Your task to perform on an android device: toggle notification dots Image 0: 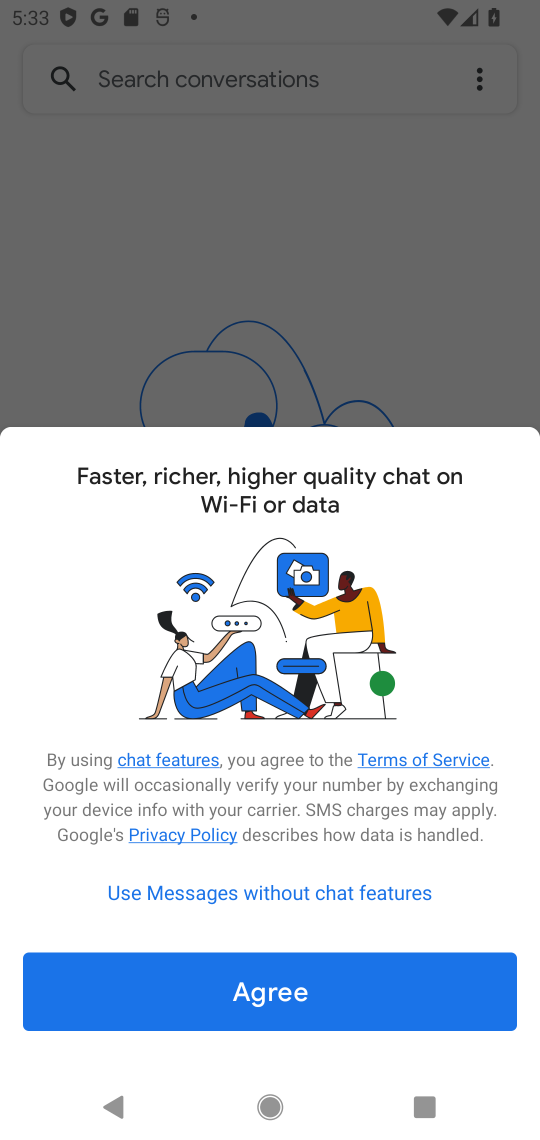
Step 0: press home button
Your task to perform on an android device: toggle notification dots Image 1: 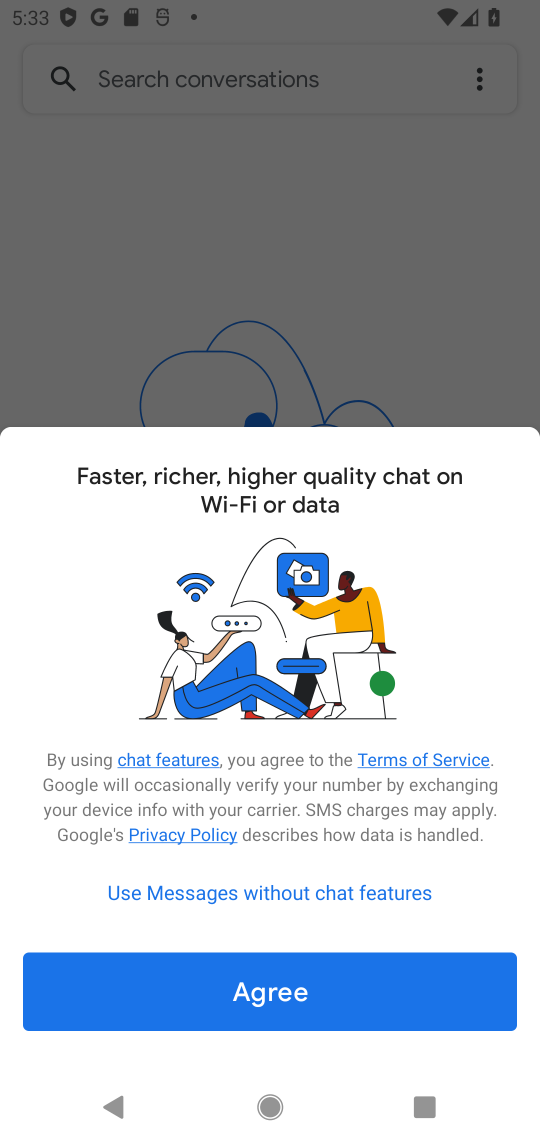
Step 1: press home button
Your task to perform on an android device: toggle notification dots Image 2: 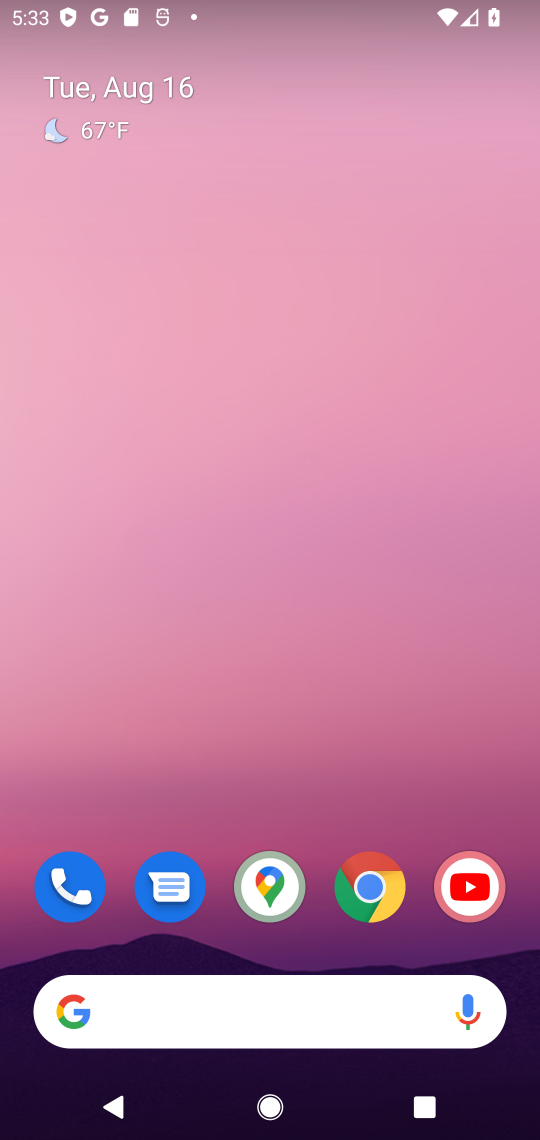
Step 2: drag from (311, 743) to (347, 6)
Your task to perform on an android device: toggle notification dots Image 3: 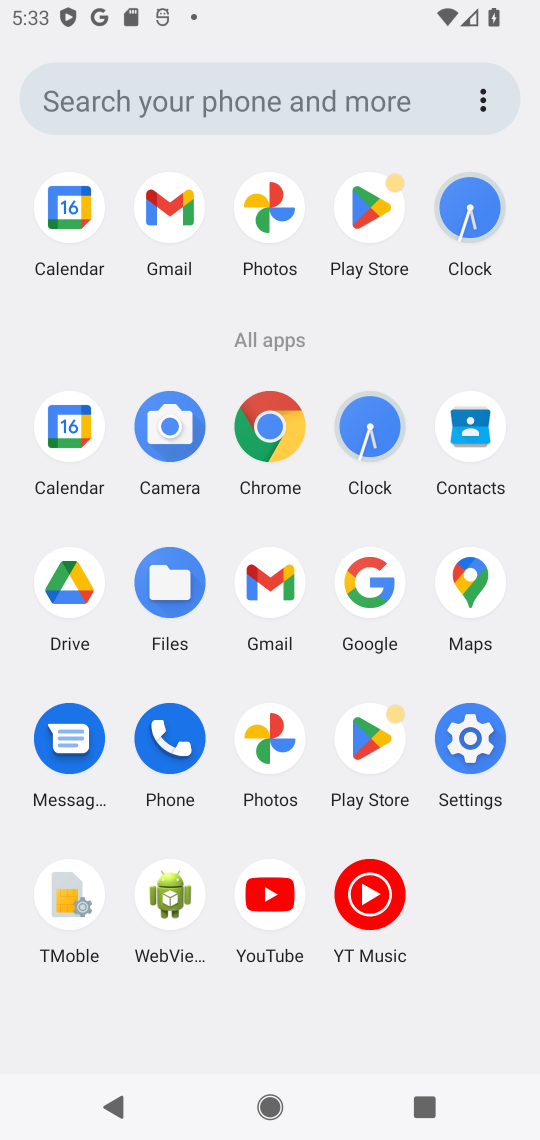
Step 3: click (453, 742)
Your task to perform on an android device: toggle notification dots Image 4: 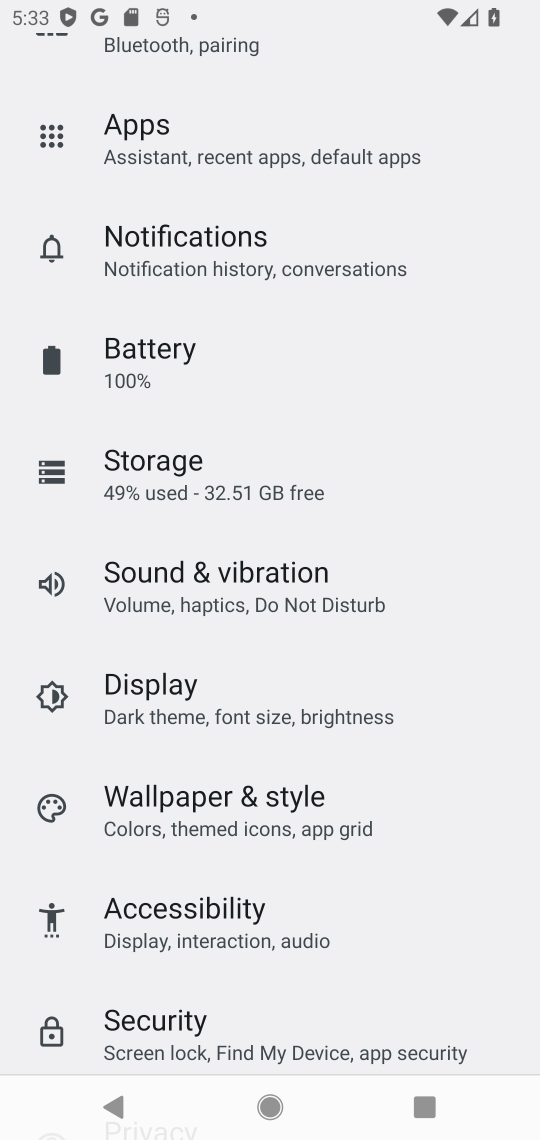
Step 4: click (217, 240)
Your task to perform on an android device: toggle notification dots Image 5: 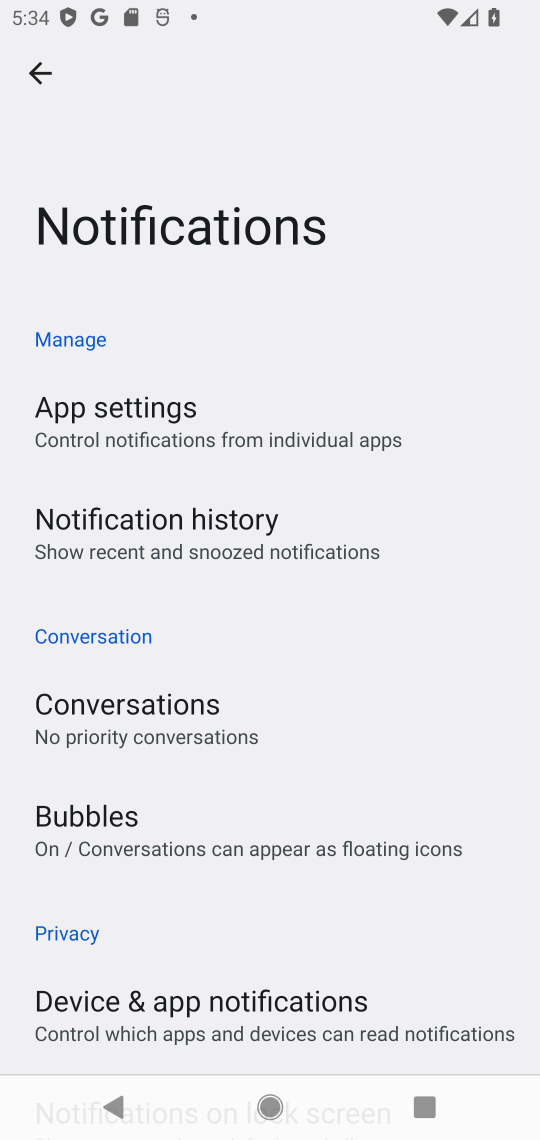
Step 5: click (230, 1005)
Your task to perform on an android device: toggle notification dots Image 6: 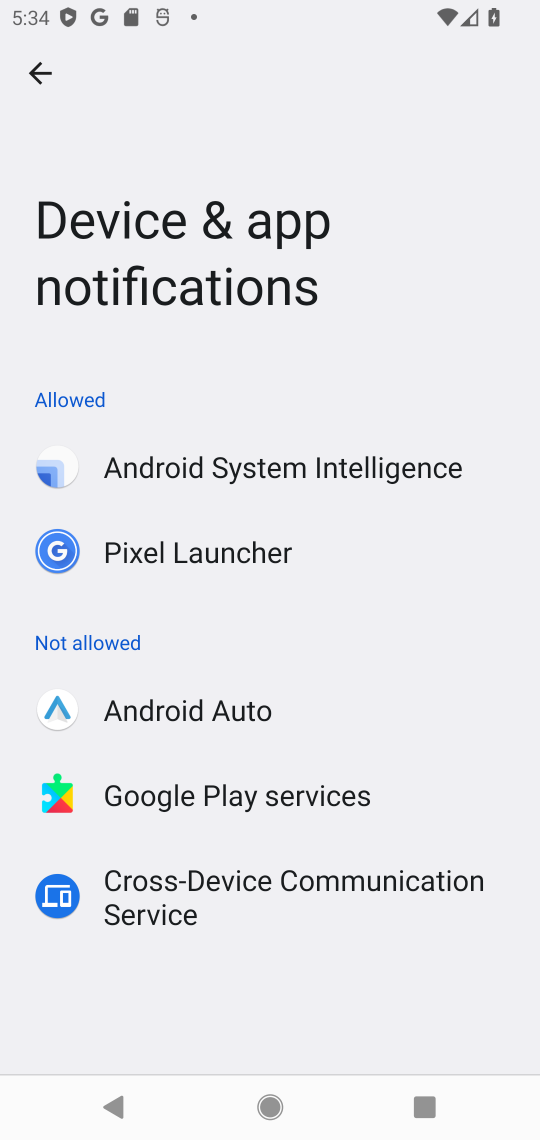
Step 6: click (40, 54)
Your task to perform on an android device: toggle notification dots Image 7: 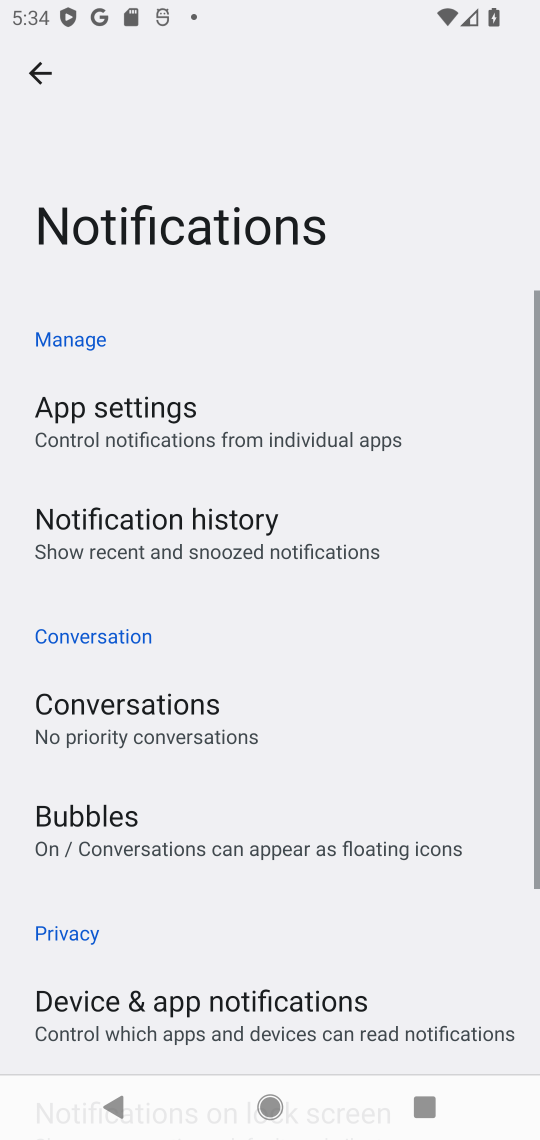
Step 7: drag from (219, 845) to (244, 114)
Your task to perform on an android device: toggle notification dots Image 8: 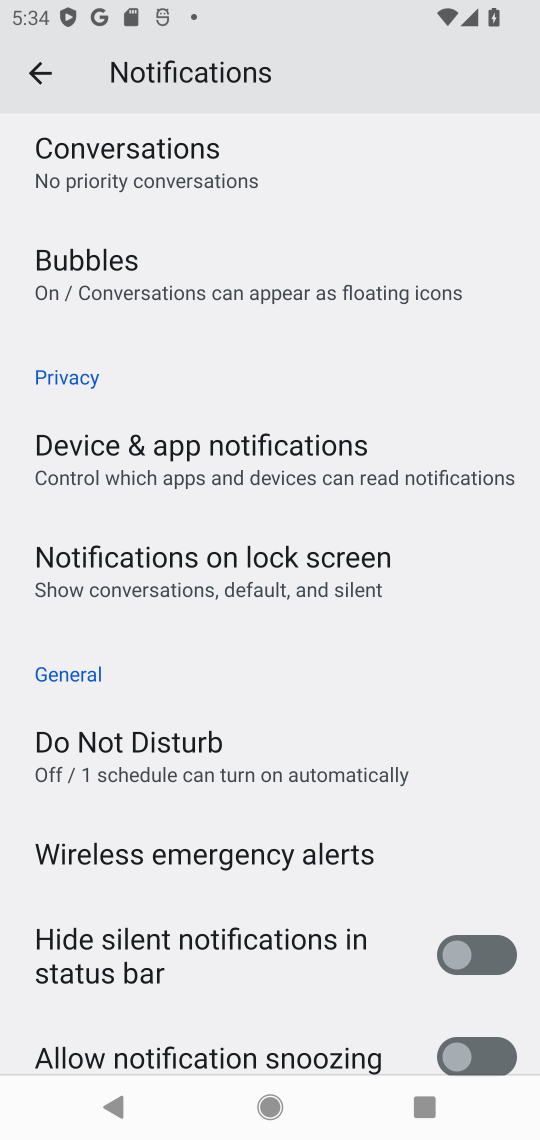
Step 8: drag from (352, 670) to (498, 140)
Your task to perform on an android device: toggle notification dots Image 9: 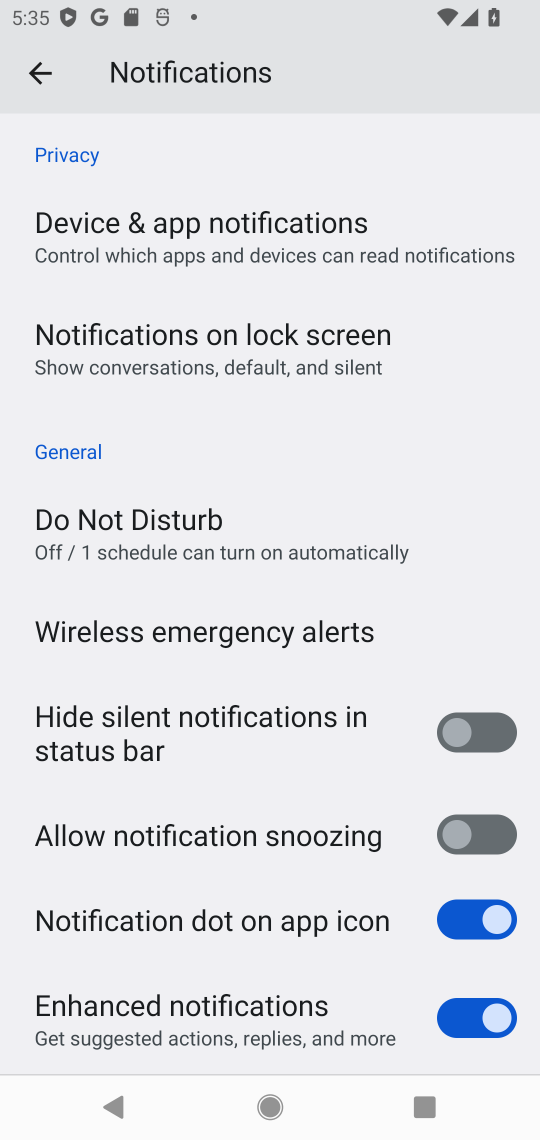
Step 9: drag from (245, 825) to (265, 314)
Your task to perform on an android device: toggle notification dots Image 10: 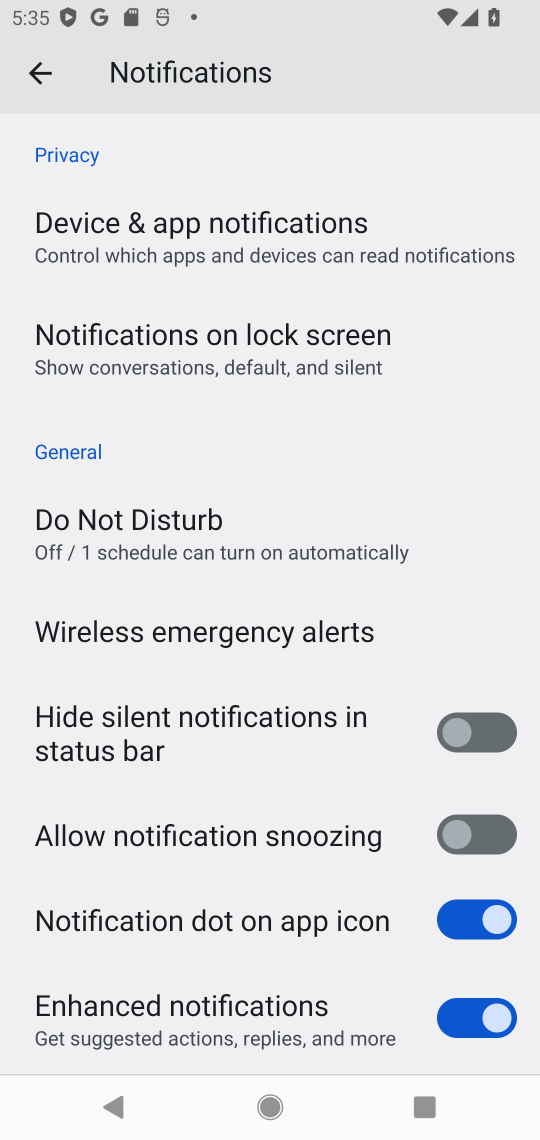
Step 10: click (462, 925)
Your task to perform on an android device: toggle notification dots Image 11: 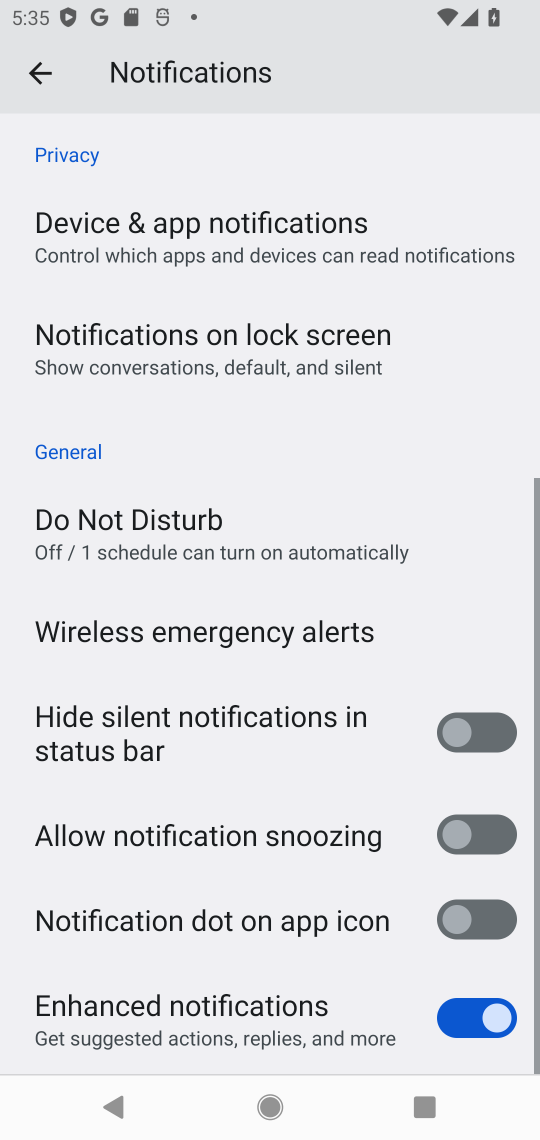
Step 11: task complete